Your task to perform on an android device: Go to ESPN.com Image 0: 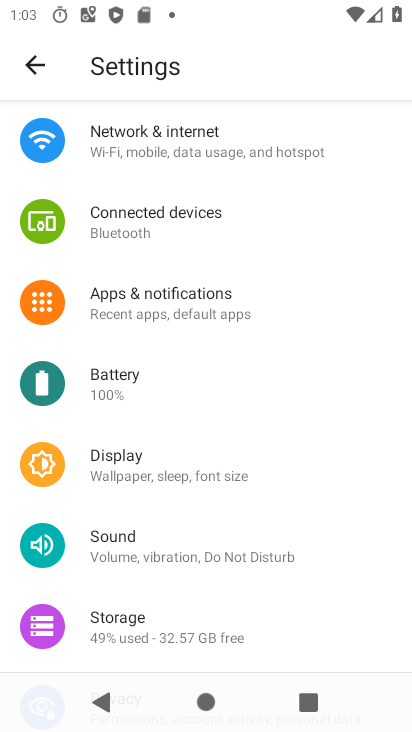
Step 0: press home button
Your task to perform on an android device: Go to ESPN.com Image 1: 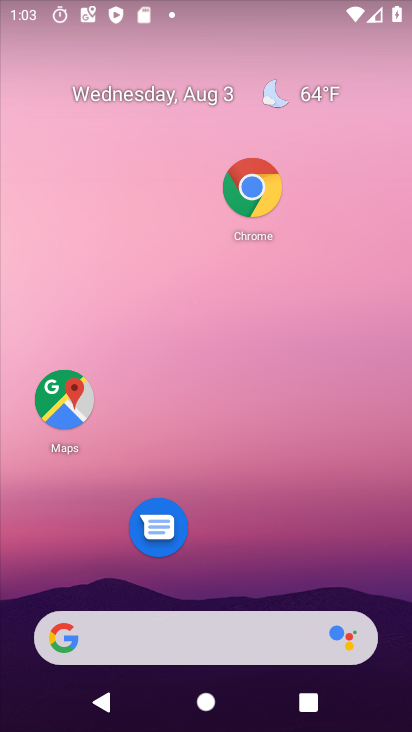
Step 1: click (258, 211)
Your task to perform on an android device: Go to ESPN.com Image 2: 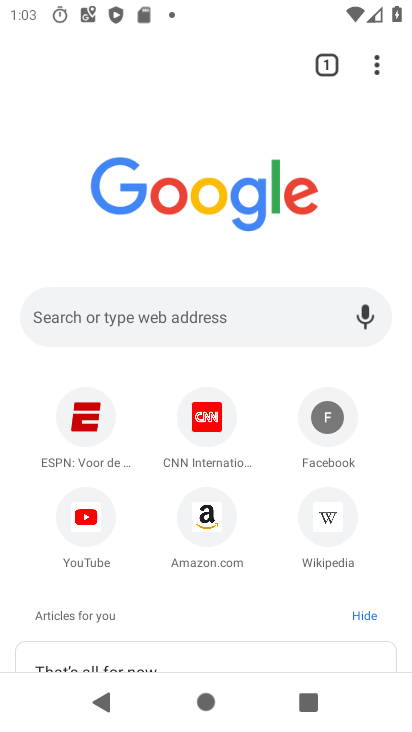
Step 2: click (91, 419)
Your task to perform on an android device: Go to ESPN.com Image 3: 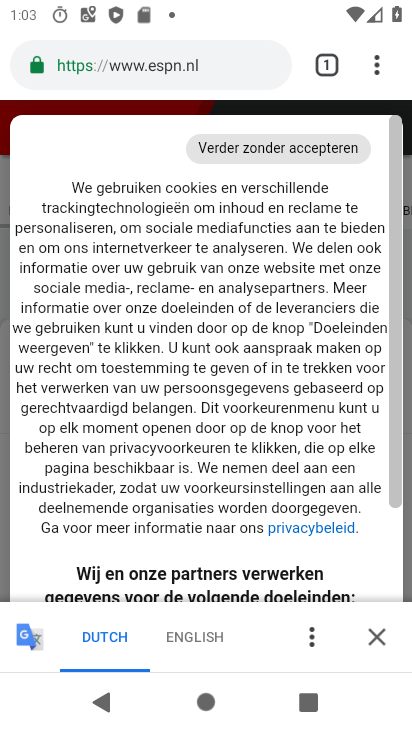
Step 3: task complete